Your task to perform on an android device: Open calendar and show me the fourth week of next month Image 0: 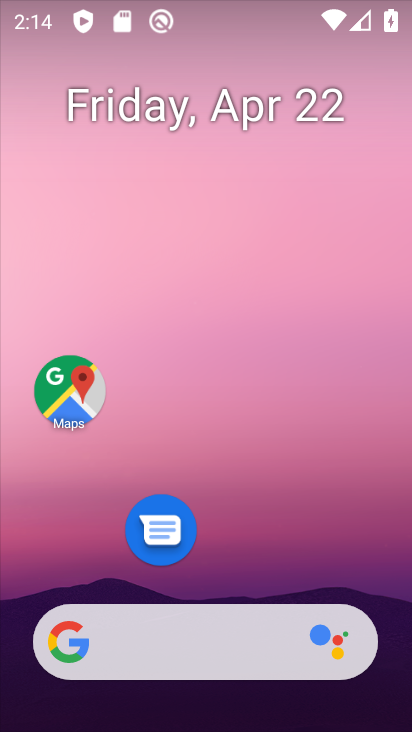
Step 0: drag from (246, 422) to (242, 2)
Your task to perform on an android device: Open calendar and show me the fourth week of next month Image 1: 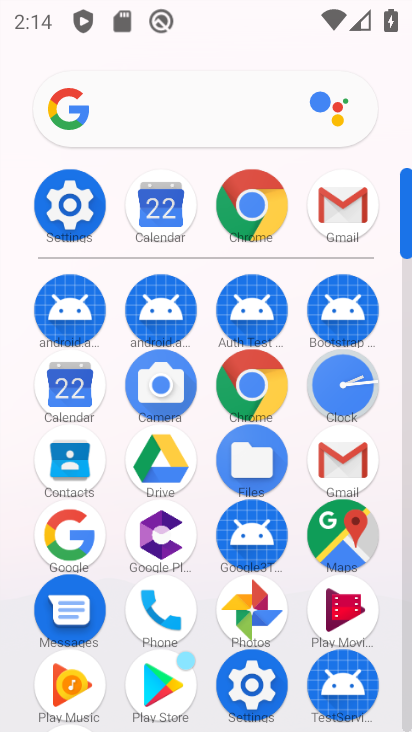
Step 1: click (76, 383)
Your task to perform on an android device: Open calendar and show me the fourth week of next month Image 2: 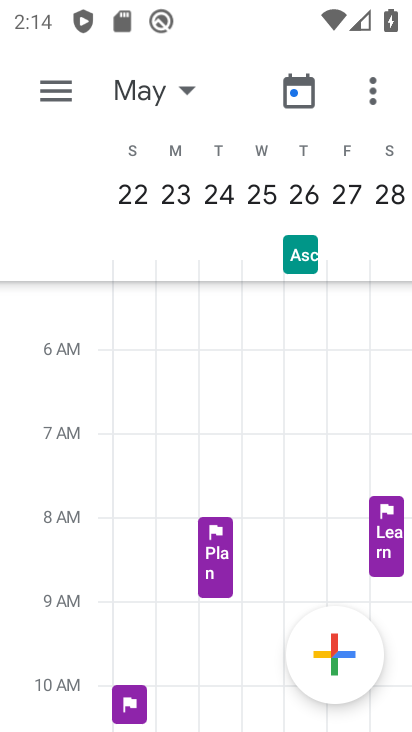
Step 2: click (188, 92)
Your task to perform on an android device: Open calendar and show me the fourth week of next month Image 3: 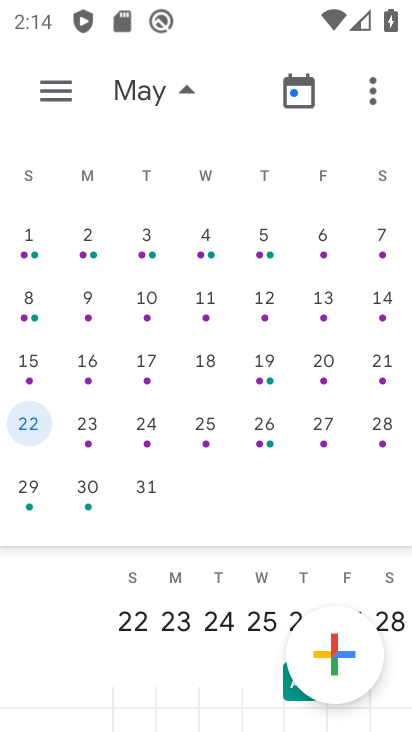
Step 3: task complete